Your task to perform on an android device: turn notification dots on Image 0: 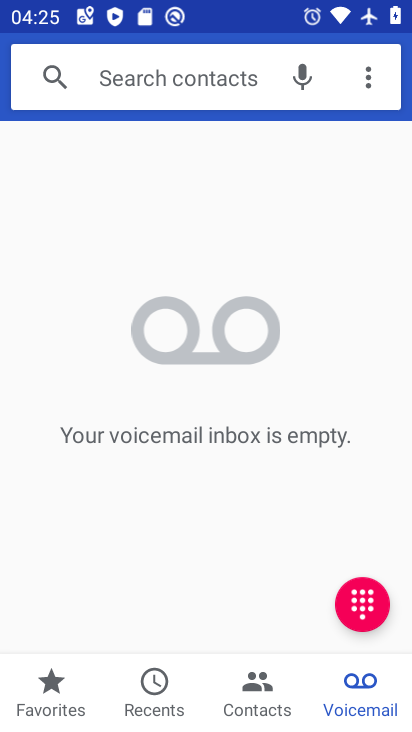
Step 0: press home button
Your task to perform on an android device: turn notification dots on Image 1: 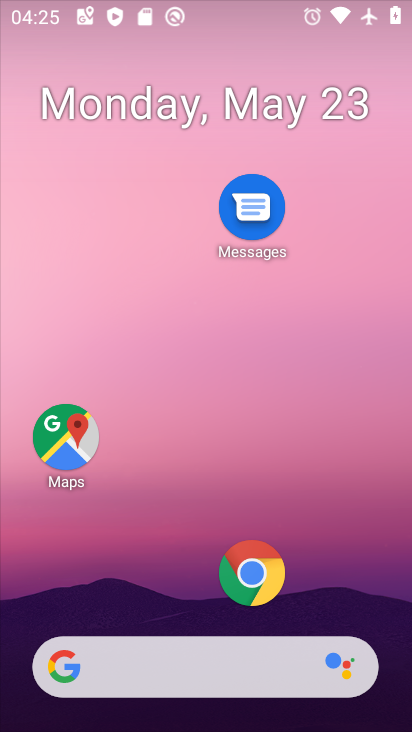
Step 1: drag from (322, 644) to (332, 1)
Your task to perform on an android device: turn notification dots on Image 2: 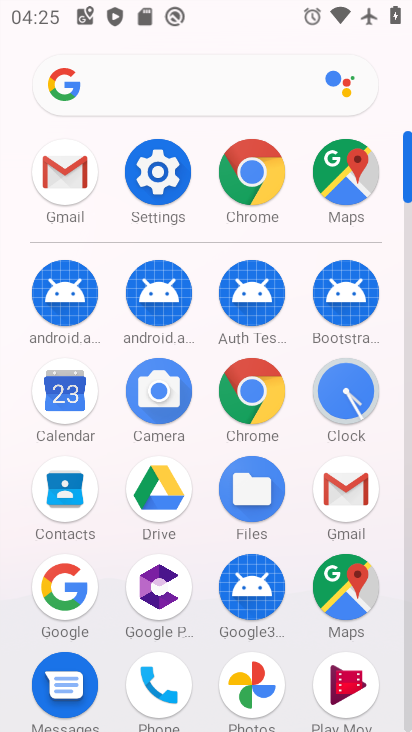
Step 2: click (171, 151)
Your task to perform on an android device: turn notification dots on Image 3: 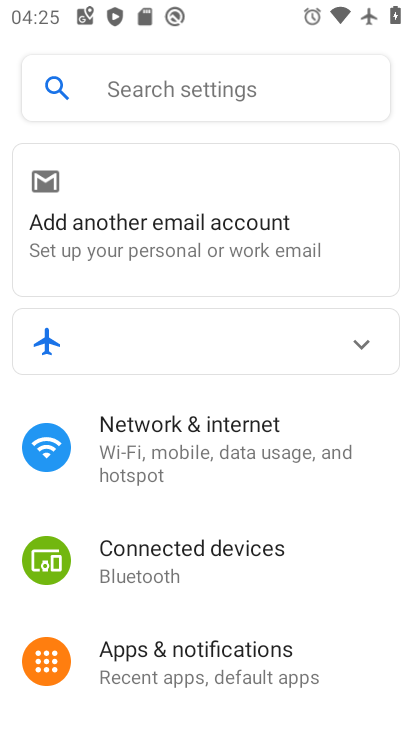
Step 3: click (249, 665)
Your task to perform on an android device: turn notification dots on Image 4: 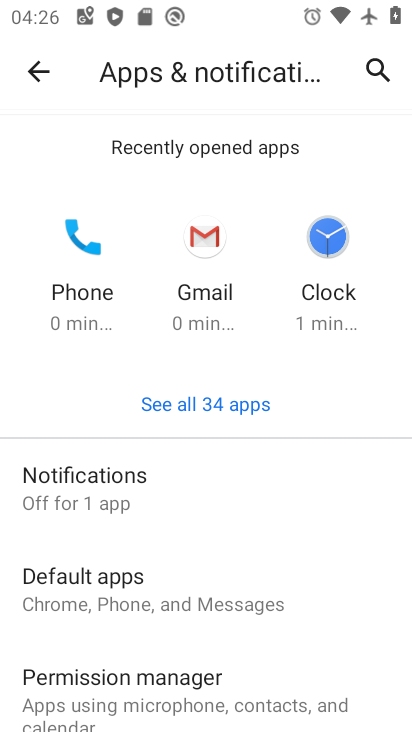
Step 4: drag from (292, 664) to (302, 336)
Your task to perform on an android device: turn notification dots on Image 5: 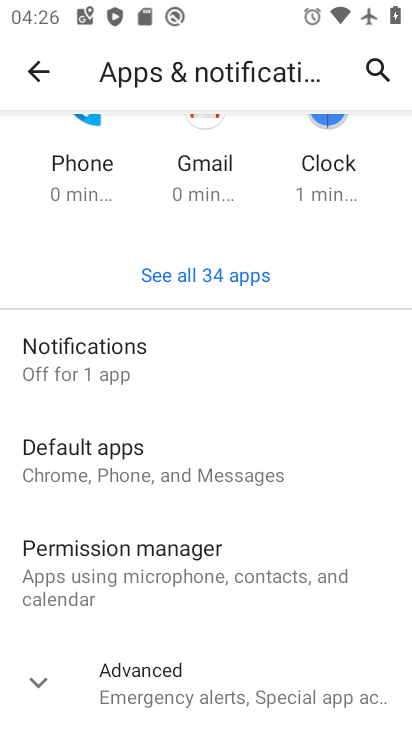
Step 5: click (181, 692)
Your task to perform on an android device: turn notification dots on Image 6: 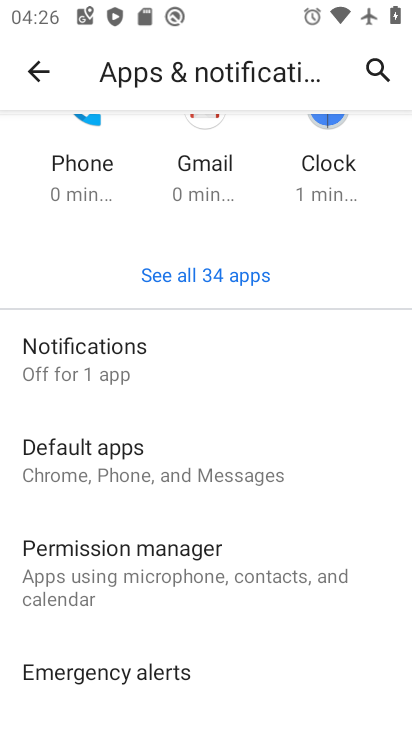
Step 6: click (117, 357)
Your task to perform on an android device: turn notification dots on Image 7: 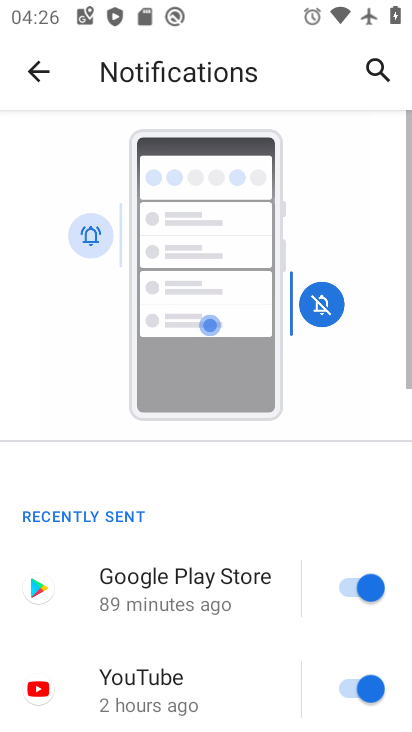
Step 7: drag from (293, 663) to (318, 37)
Your task to perform on an android device: turn notification dots on Image 8: 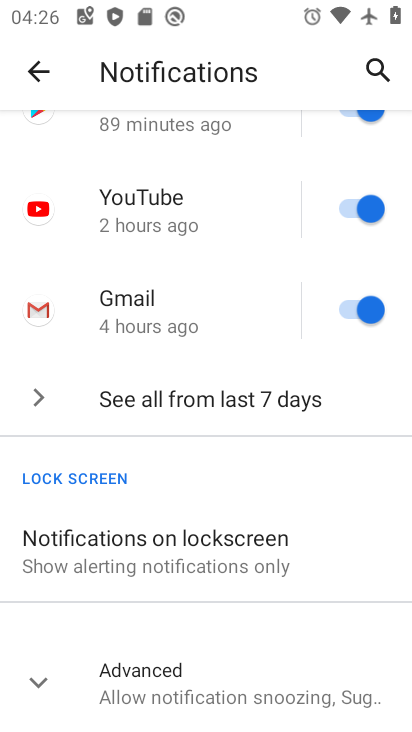
Step 8: click (243, 700)
Your task to perform on an android device: turn notification dots on Image 9: 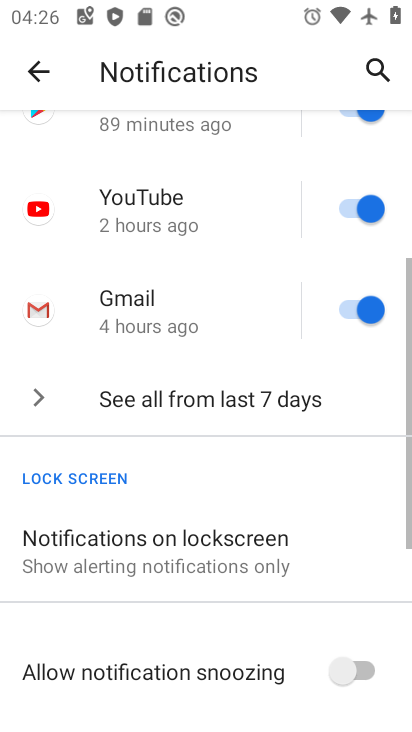
Step 9: drag from (243, 700) to (284, 130)
Your task to perform on an android device: turn notification dots on Image 10: 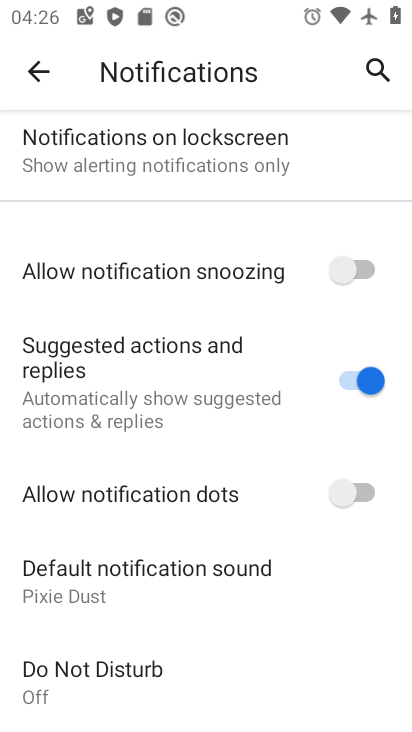
Step 10: click (366, 495)
Your task to perform on an android device: turn notification dots on Image 11: 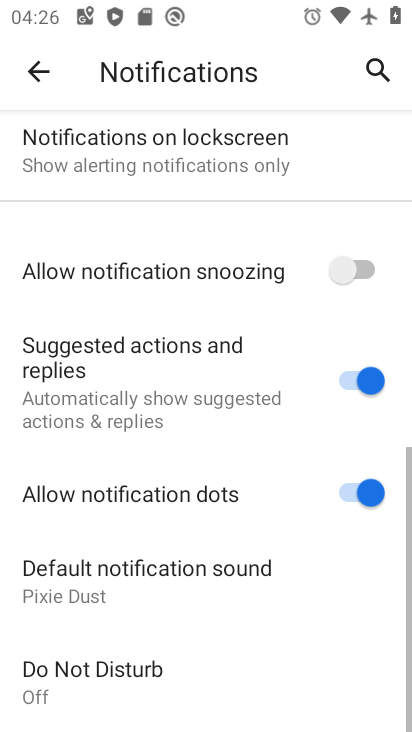
Step 11: task complete